Your task to perform on an android device: Go to notification settings Image 0: 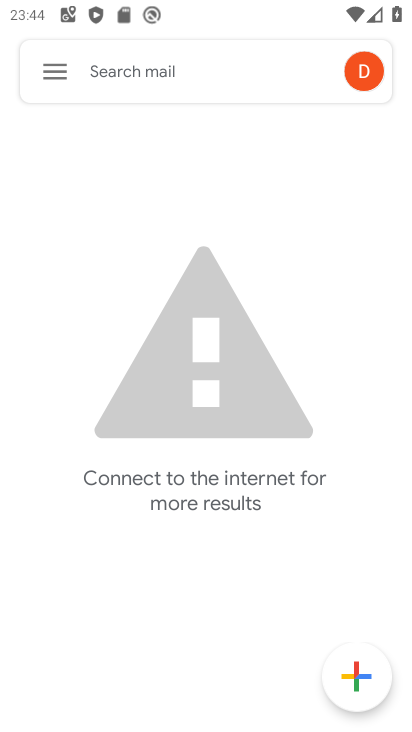
Step 0: press home button
Your task to perform on an android device: Go to notification settings Image 1: 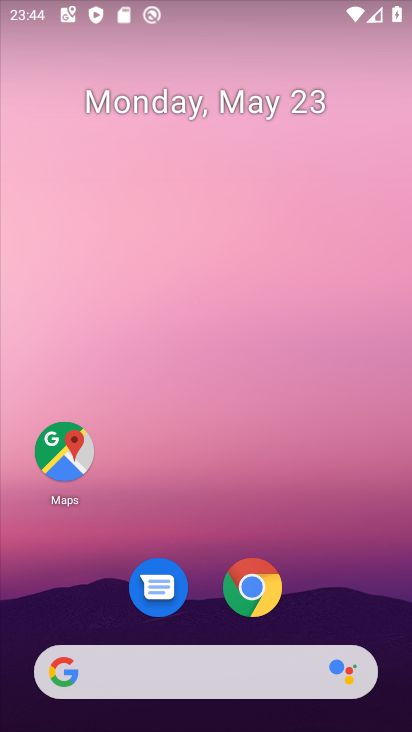
Step 1: drag from (357, 617) to (261, 306)
Your task to perform on an android device: Go to notification settings Image 2: 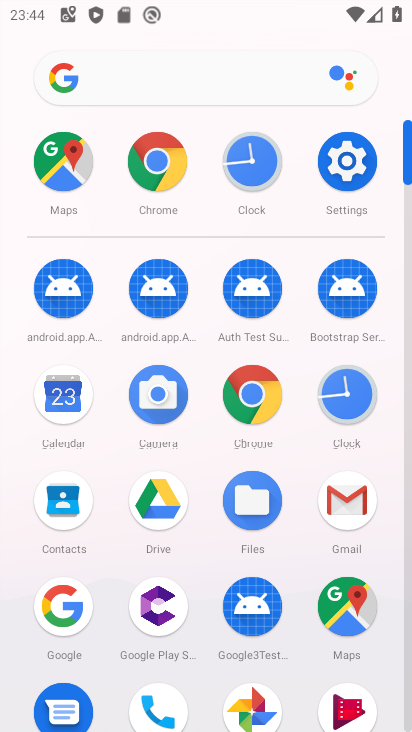
Step 2: click (345, 178)
Your task to perform on an android device: Go to notification settings Image 3: 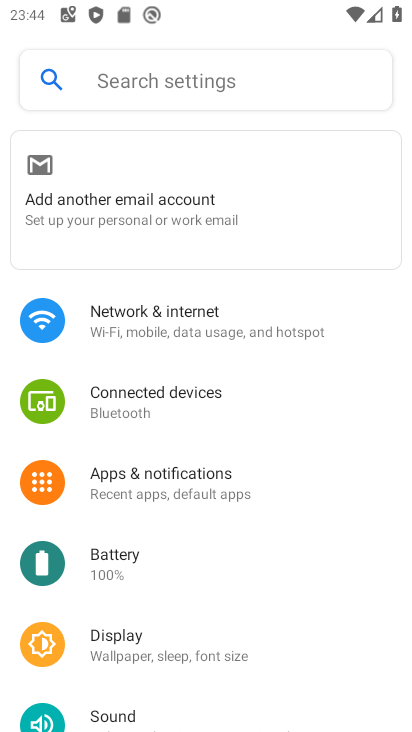
Step 3: click (231, 485)
Your task to perform on an android device: Go to notification settings Image 4: 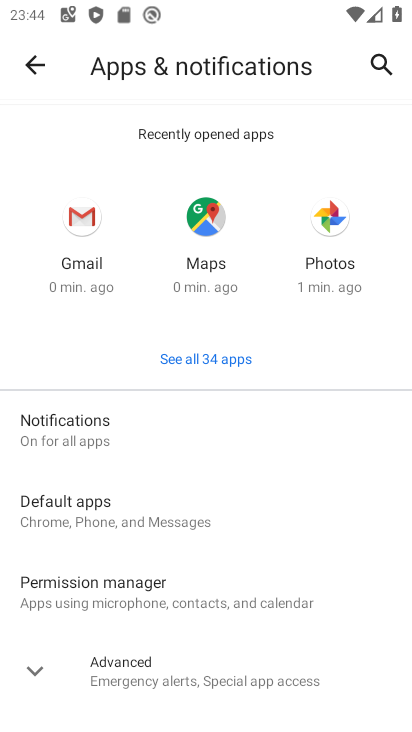
Step 4: click (221, 432)
Your task to perform on an android device: Go to notification settings Image 5: 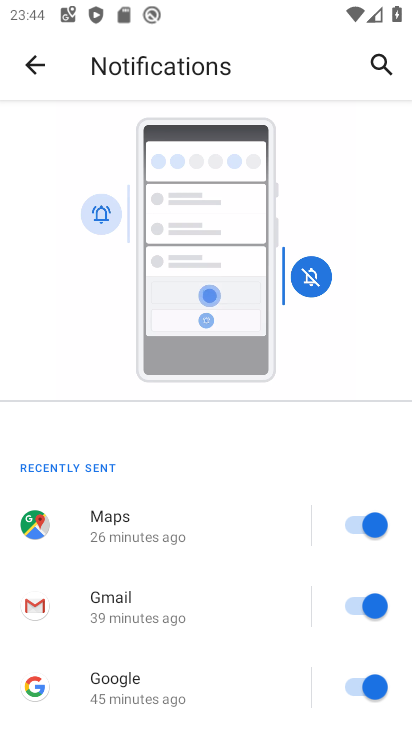
Step 5: task complete